Your task to perform on an android device: set the timer Image 0: 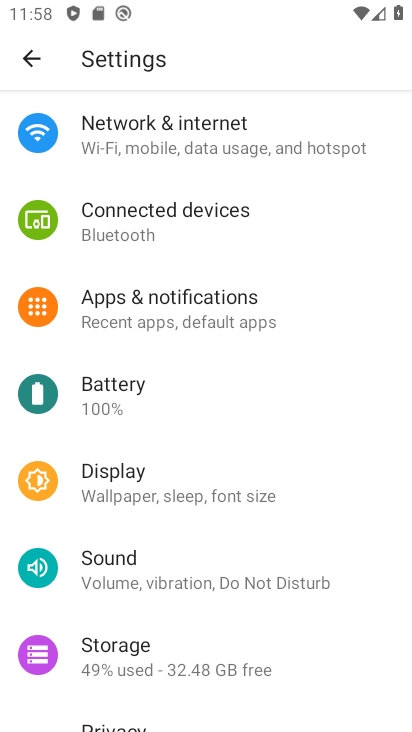
Step 0: press back button
Your task to perform on an android device: set the timer Image 1: 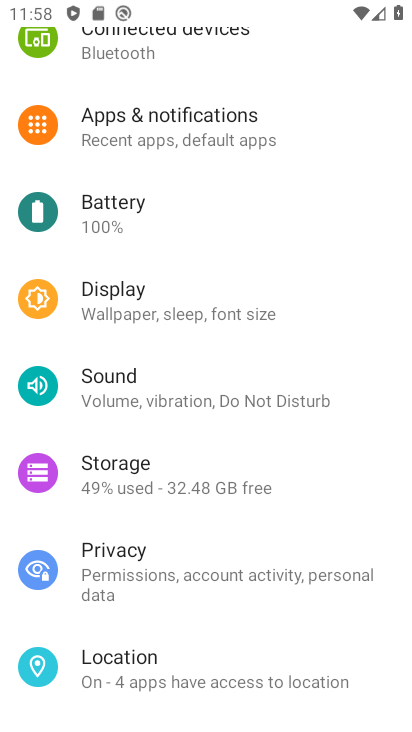
Step 1: press home button
Your task to perform on an android device: set the timer Image 2: 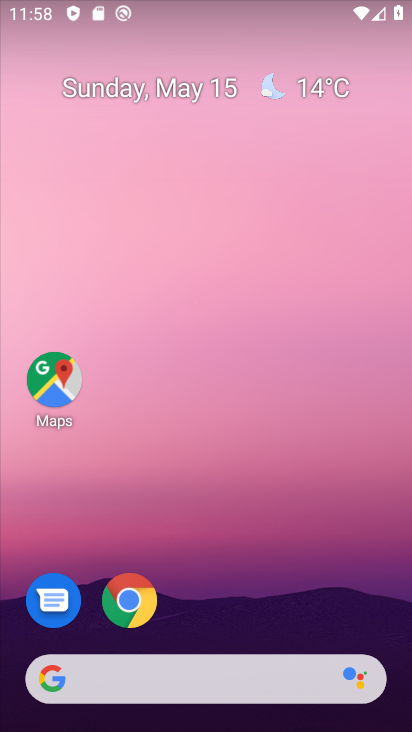
Step 2: drag from (223, 456) to (231, 28)
Your task to perform on an android device: set the timer Image 3: 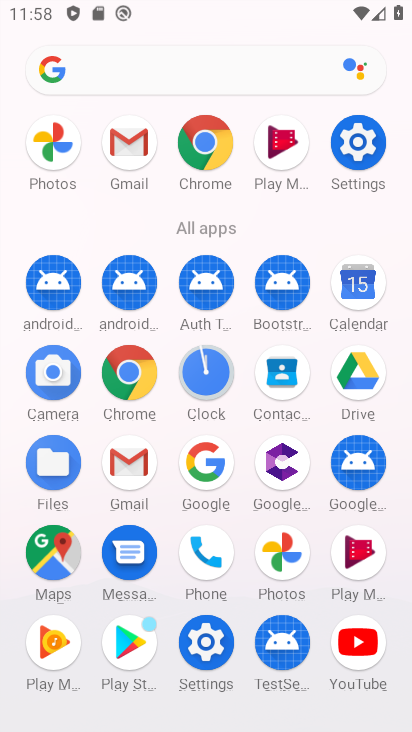
Step 3: click (204, 372)
Your task to perform on an android device: set the timer Image 4: 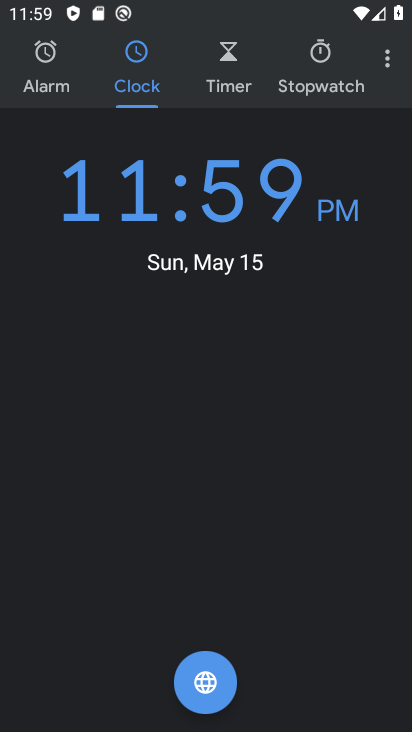
Step 4: click (223, 64)
Your task to perform on an android device: set the timer Image 5: 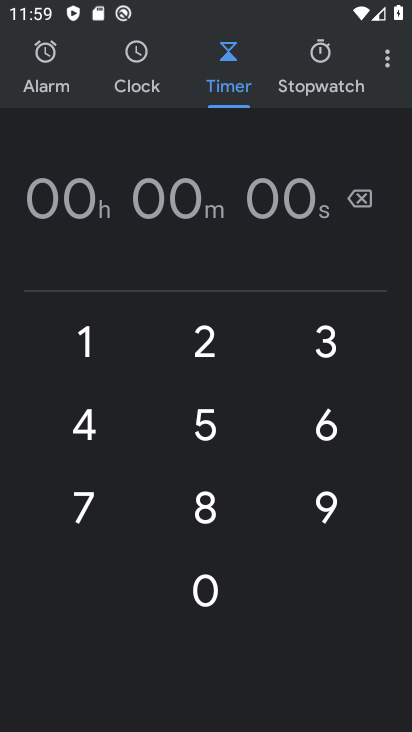
Step 5: click (102, 336)
Your task to perform on an android device: set the timer Image 6: 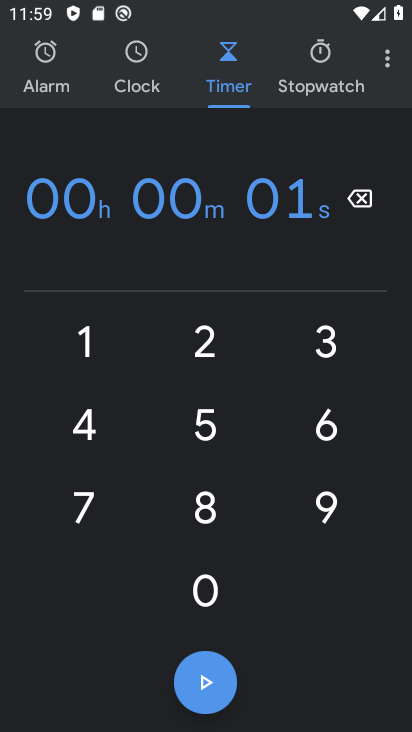
Step 6: click (229, 340)
Your task to perform on an android device: set the timer Image 7: 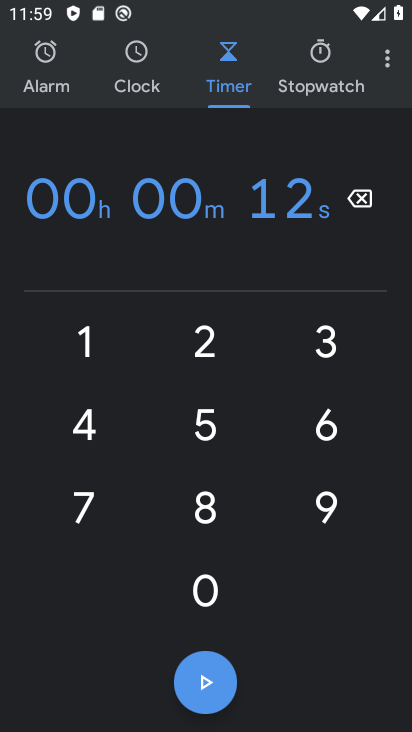
Step 7: click (324, 355)
Your task to perform on an android device: set the timer Image 8: 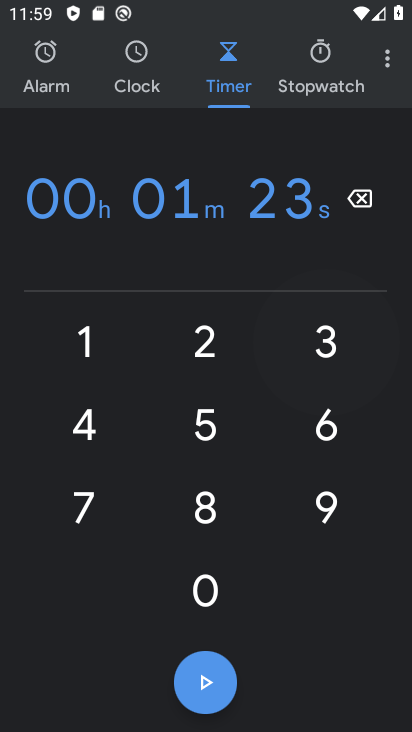
Step 8: click (197, 456)
Your task to perform on an android device: set the timer Image 9: 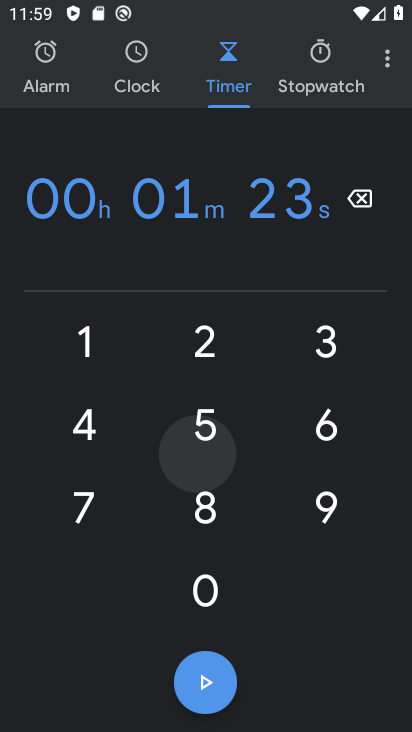
Step 9: click (193, 518)
Your task to perform on an android device: set the timer Image 10: 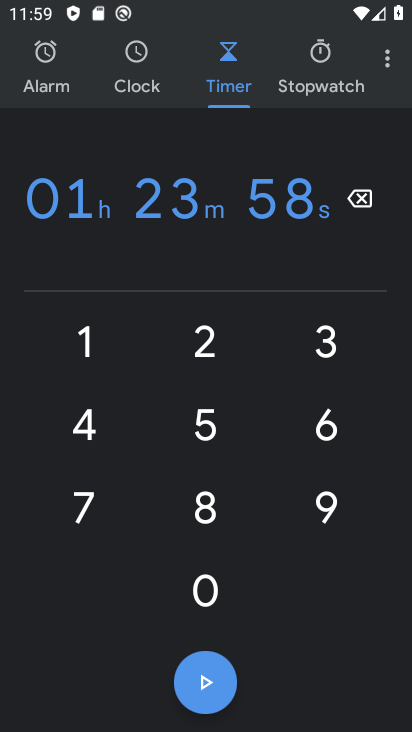
Step 10: click (188, 693)
Your task to perform on an android device: set the timer Image 11: 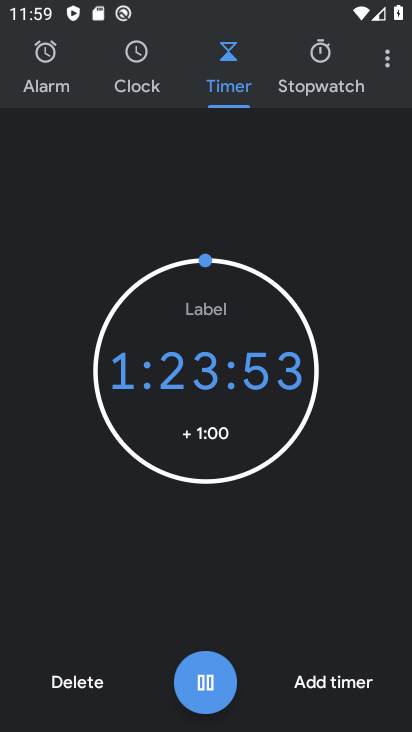
Step 11: task complete